Your task to perform on an android device: toggle notifications settings in the gmail app Image 0: 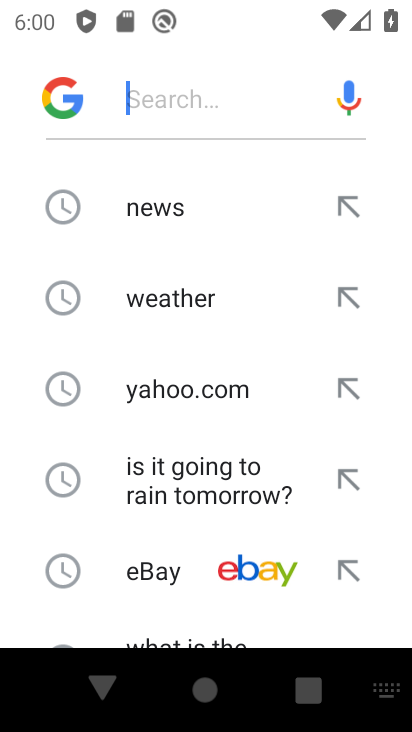
Step 0: press home button
Your task to perform on an android device: toggle notifications settings in the gmail app Image 1: 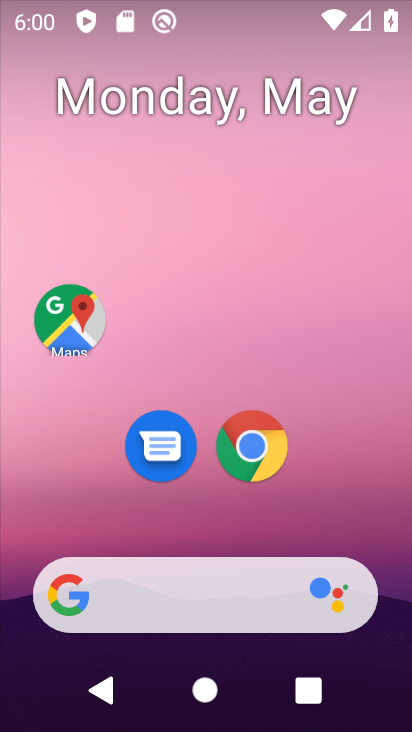
Step 1: drag from (343, 503) to (236, 150)
Your task to perform on an android device: toggle notifications settings in the gmail app Image 2: 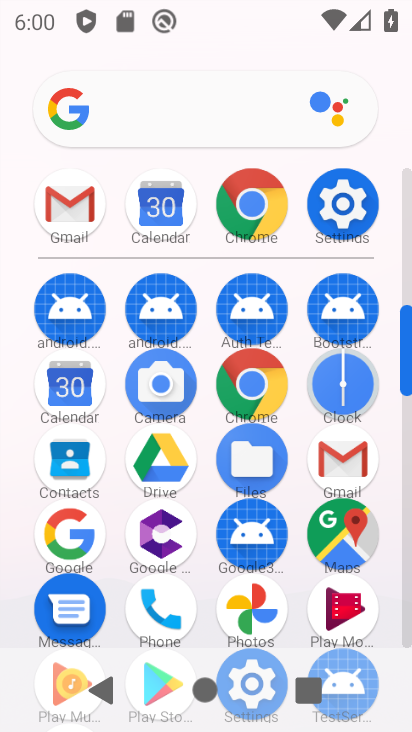
Step 2: click (54, 205)
Your task to perform on an android device: toggle notifications settings in the gmail app Image 3: 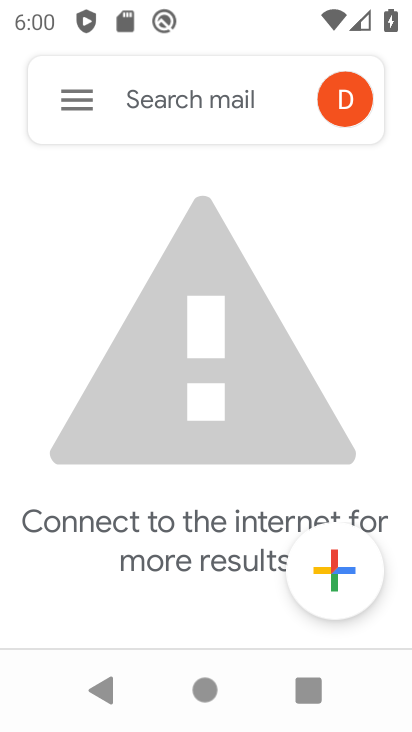
Step 3: click (77, 91)
Your task to perform on an android device: toggle notifications settings in the gmail app Image 4: 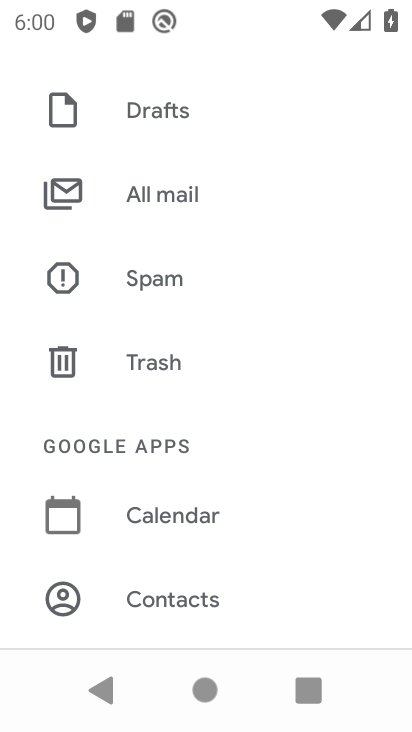
Step 4: drag from (233, 529) to (214, 109)
Your task to perform on an android device: toggle notifications settings in the gmail app Image 5: 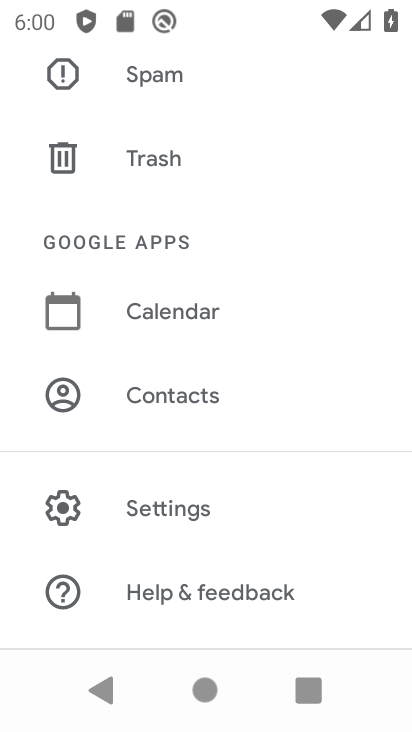
Step 5: click (154, 503)
Your task to perform on an android device: toggle notifications settings in the gmail app Image 6: 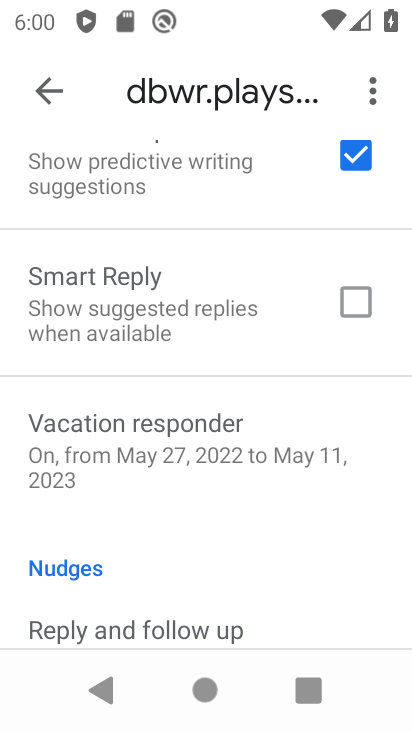
Step 6: click (59, 100)
Your task to perform on an android device: toggle notifications settings in the gmail app Image 7: 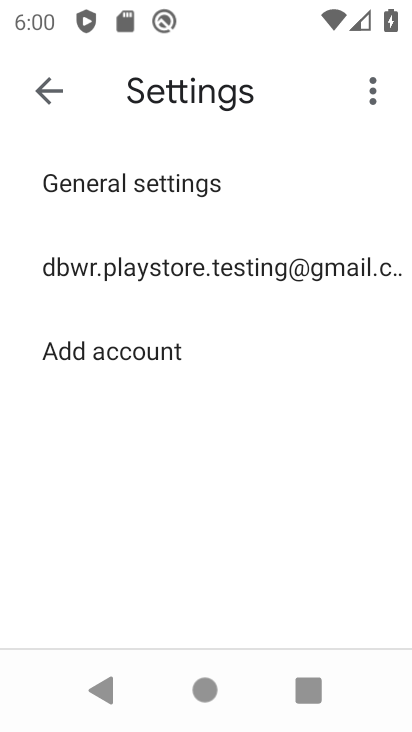
Step 7: click (134, 184)
Your task to perform on an android device: toggle notifications settings in the gmail app Image 8: 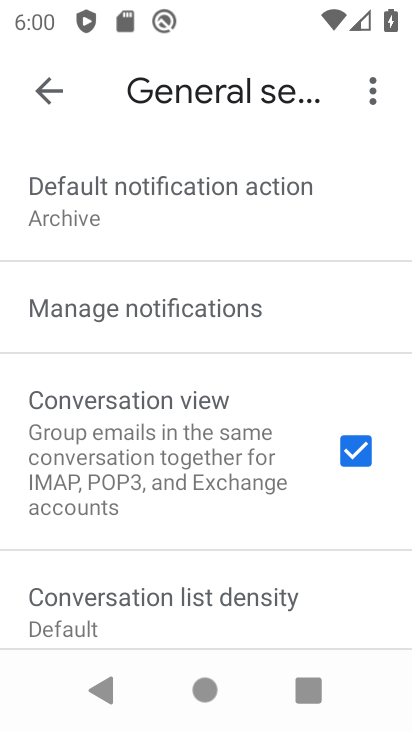
Step 8: click (149, 310)
Your task to perform on an android device: toggle notifications settings in the gmail app Image 9: 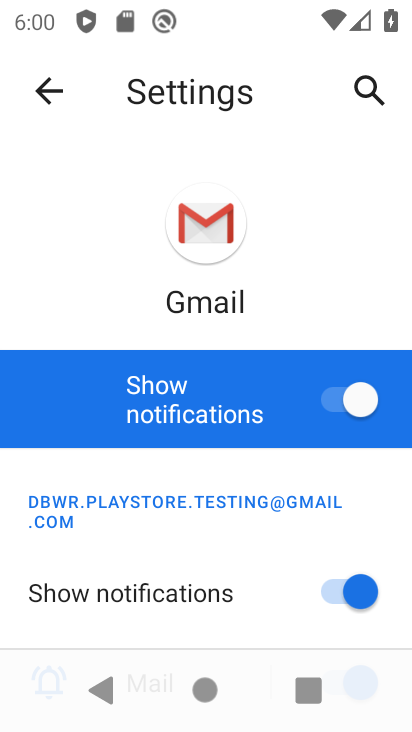
Step 9: click (353, 404)
Your task to perform on an android device: toggle notifications settings in the gmail app Image 10: 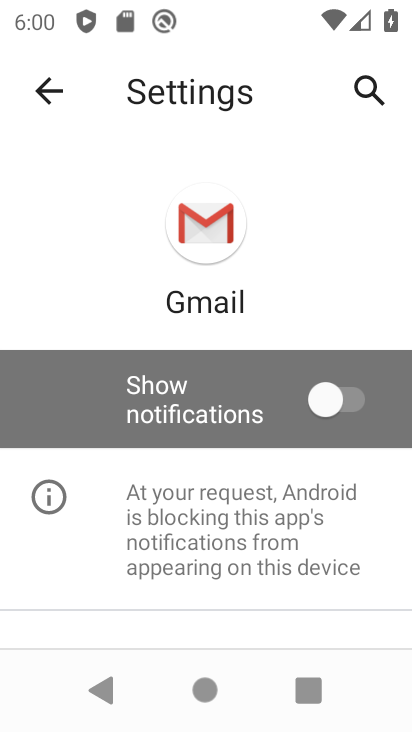
Step 10: task complete